Your task to perform on an android device: Go to internet settings Image 0: 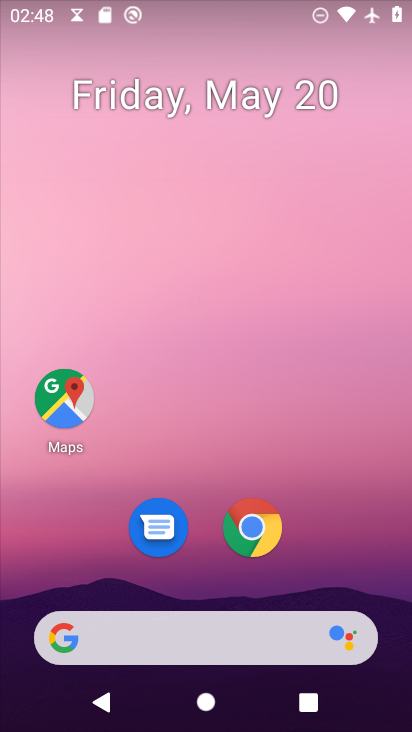
Step 0: press home button
Your task to perform on an android device: Go to internet settings Image 1: 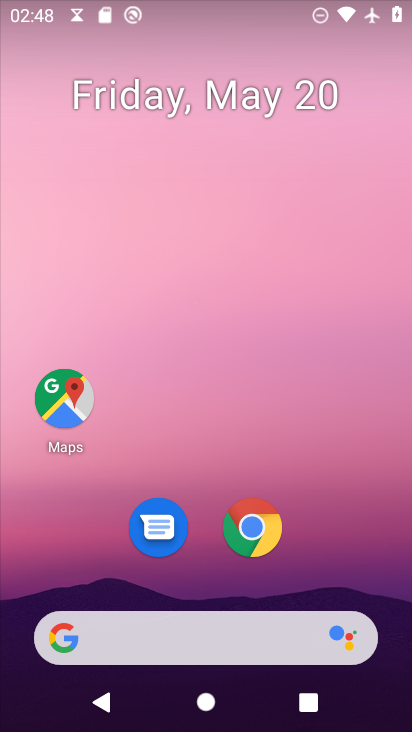
Step 1: drag from (183, 645) to (303, 150)
Your task to perform on an android device: Go to internet settings Image 2: 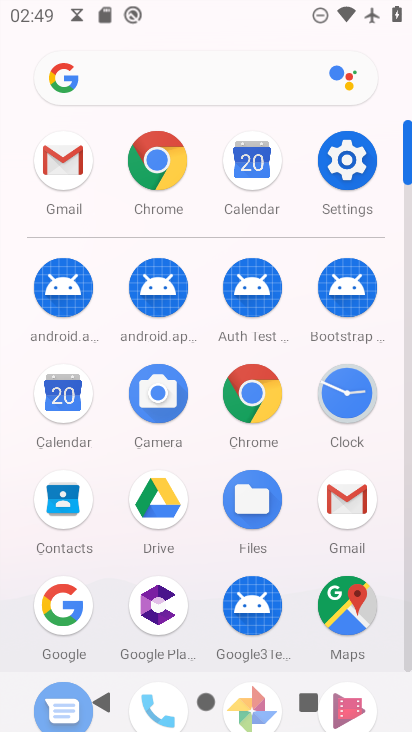
Step 2: click (332, 177)
Your task to perform on an android device: Go to internet settings Image 3: 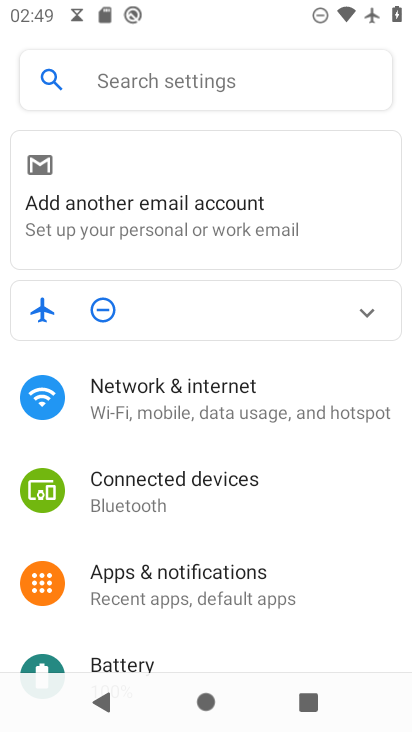
Step 3: click (204, 393)
Your task to perform on an android device: Go to internet settings Image 4: 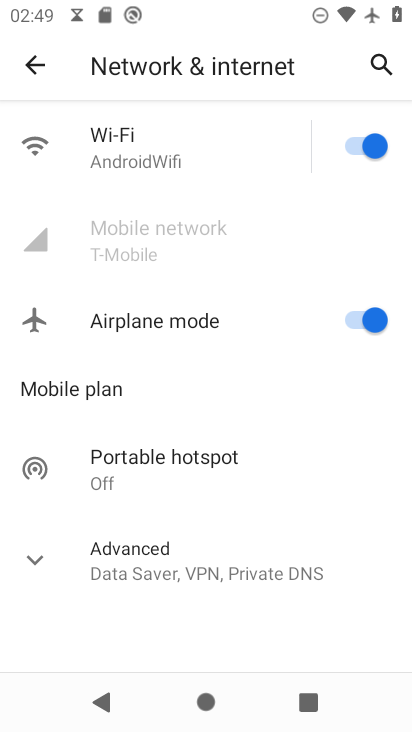
Step 4: task complete